Your task to perform on an android device: Open wifi settings Image 0: 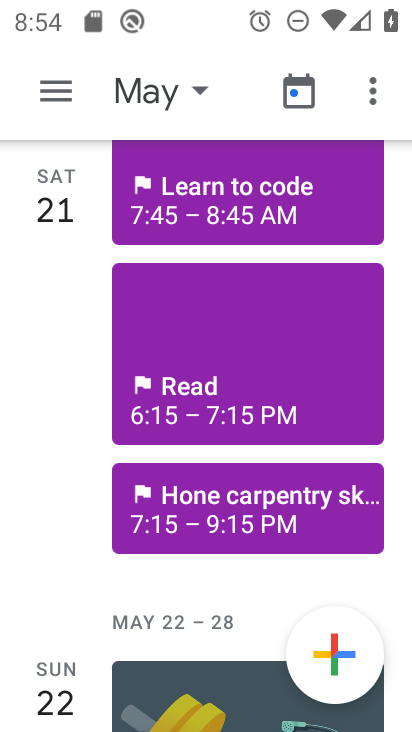
Step 0: press home button
Your task to perform on an android device: Open wifi settings Image 1: 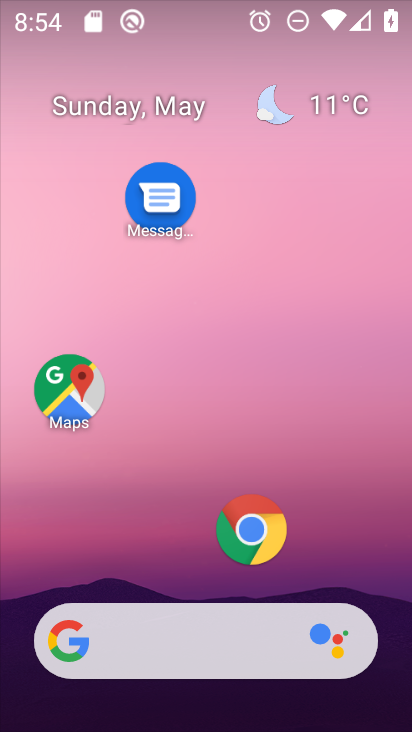
Step 1: drag from (193, 566) to (282, 3)
Your task to perform on an android device: Open wifi settings Image 2: 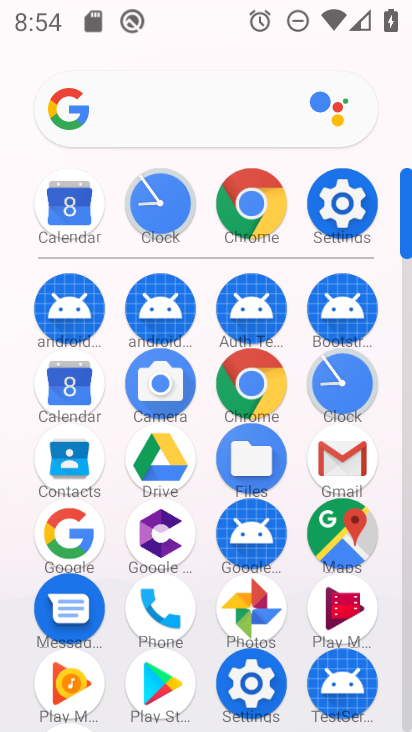
Step 2: click (342, 206)
Your task to perform on an android device: Open wifi settings Image 3: 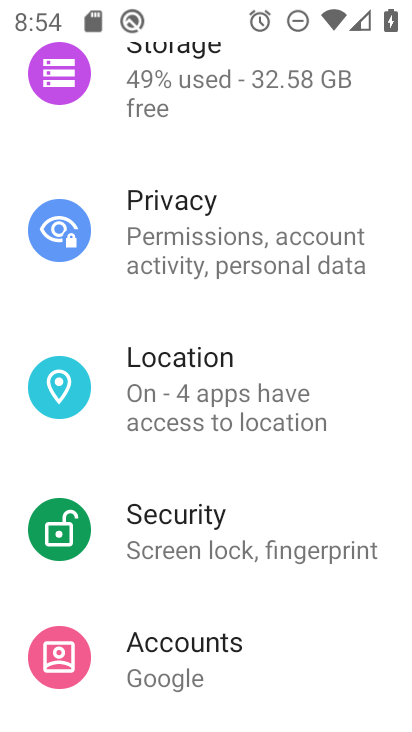
Step 3: drag from (253, 185) to (243, 721)
Your task to perform on an android device: Open wifi settings Image 4: 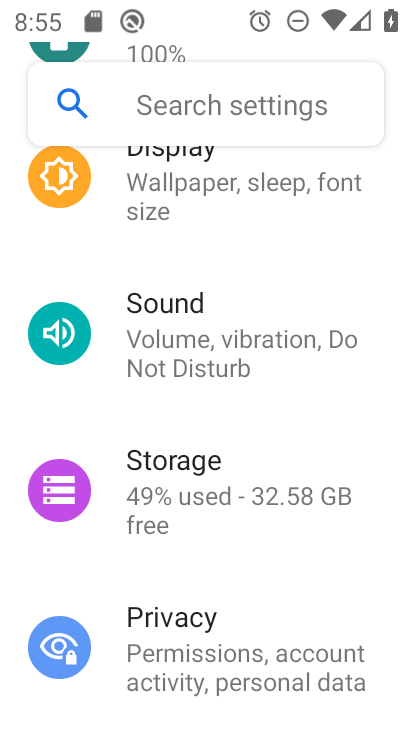
Step 4: drag from (216, 244) to (224, 691)
Your task to perform on an android device: Open wifi settings Image 5: 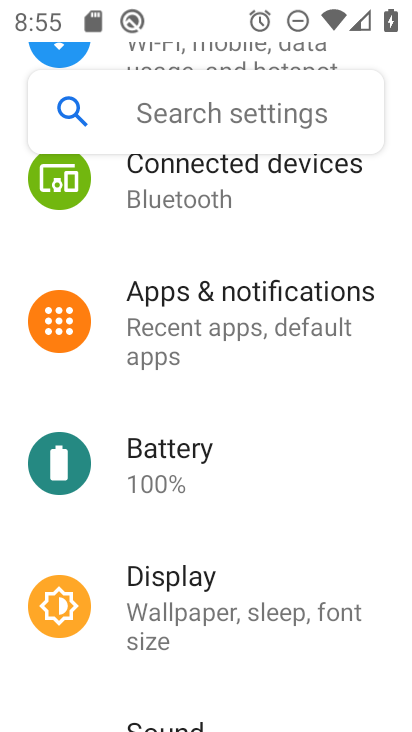
Step 5: drag from (223, 213) to (247, 731)
Your task to perform on an android device: Open wifi settings Image 6: 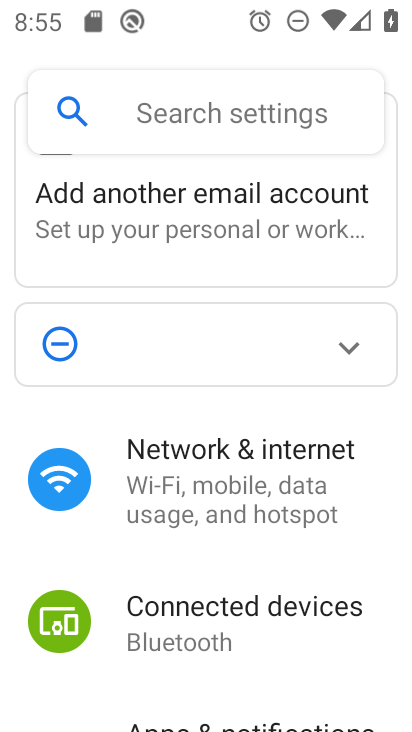
Step 6: click (185, 472)
Your task to perform on an android device: Open wifi settings Image 7: 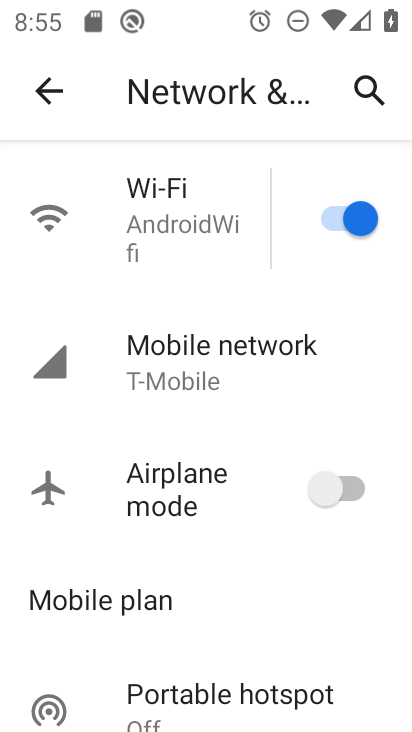
Step 7: click (163, 211)
Your task to perform on an android device: Open wifi settings Image 8: 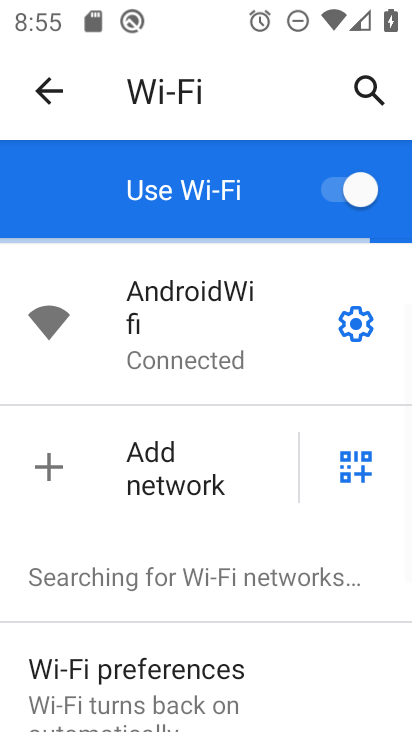
Step 8: task complete